Your task to perform on an android device: When is my next appointment? Image 0: 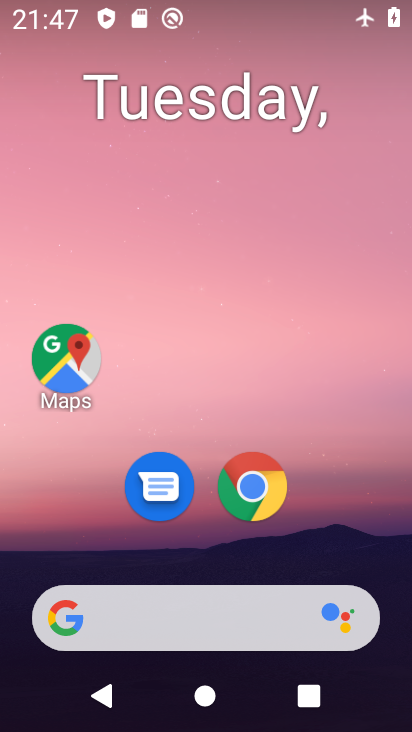
Step 0: press home button
Your task to perform on an android device: When is my next appointment? Image 1: 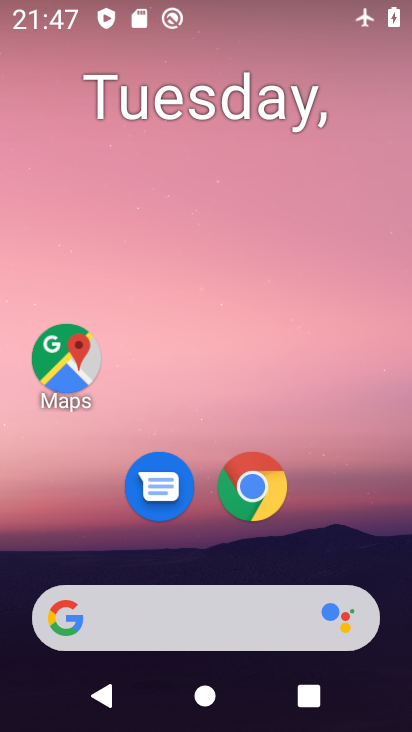
Step 1: drag from (350, 567) to (358, 153)
Your task to perform on an android device: When is my next appointment? Image 2: 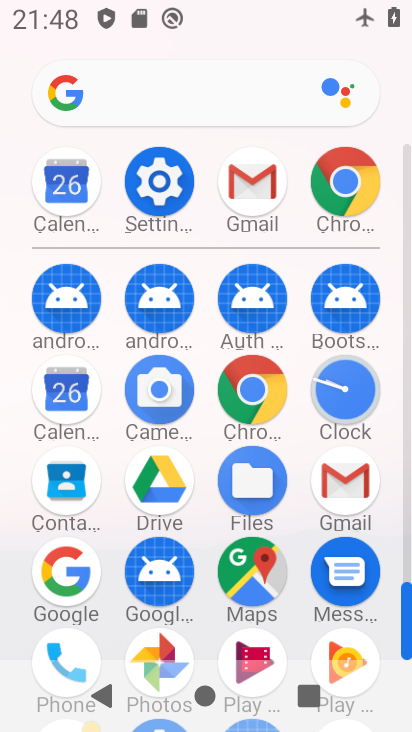
Step 2: click (69, 409)
Your task to perform on an android device: When is my next appointment? Image 3: 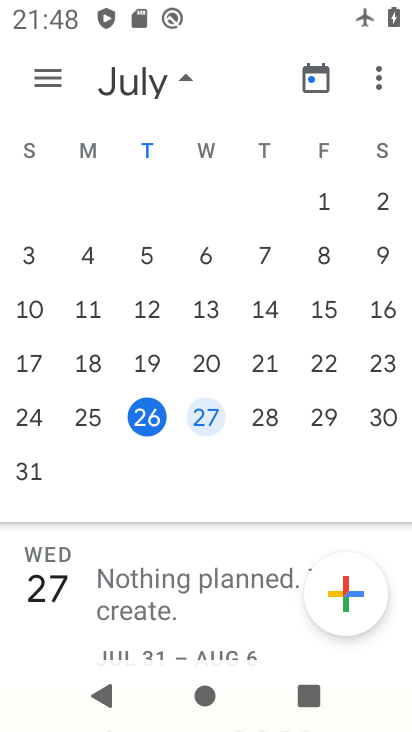
Step 3: task complete